Your task to perform on an android device: Open the calendar app, open the side menu, and click the "Day" option Image 0: 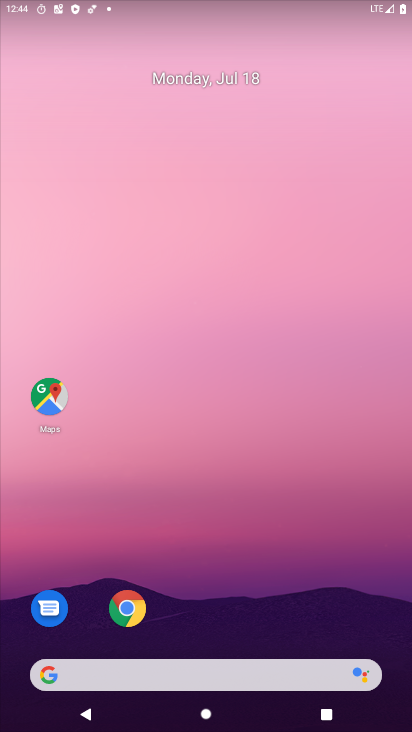
Step 0: drag from (227, 671) to (268, 86)
Your task to perform on an android device: Open the calendar app, open the side menu, and click the "Day" option Image 1: 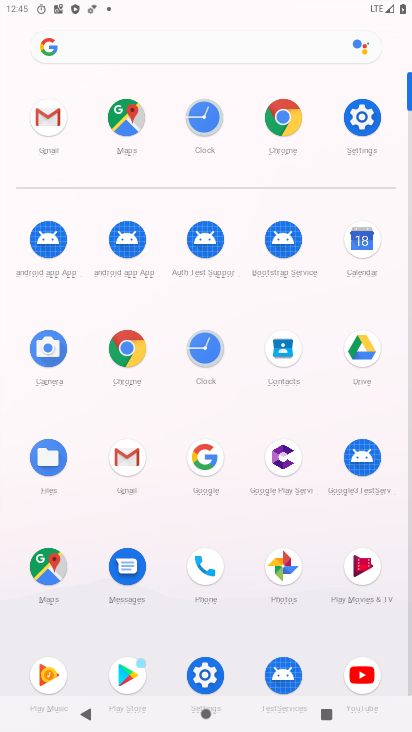
Step 1: click (362, 252)
Your task to perform on an android device: Open the calendar app, open the side menu, and click the "Day" option Image 2: 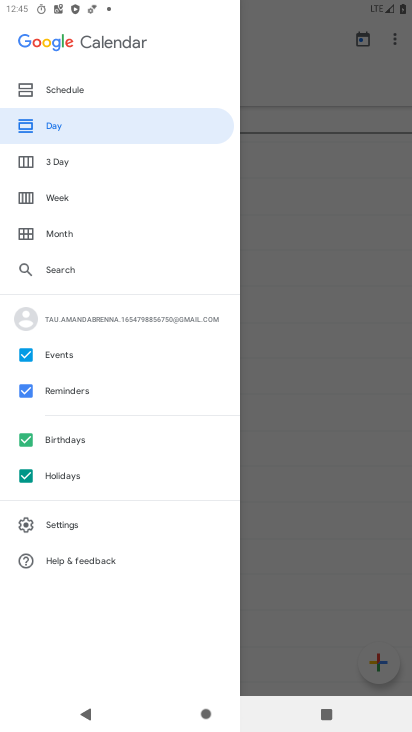
Step 2: task complete